Your task to perform on an android device: Open Google Maps and go to "Timeline" Image 0: 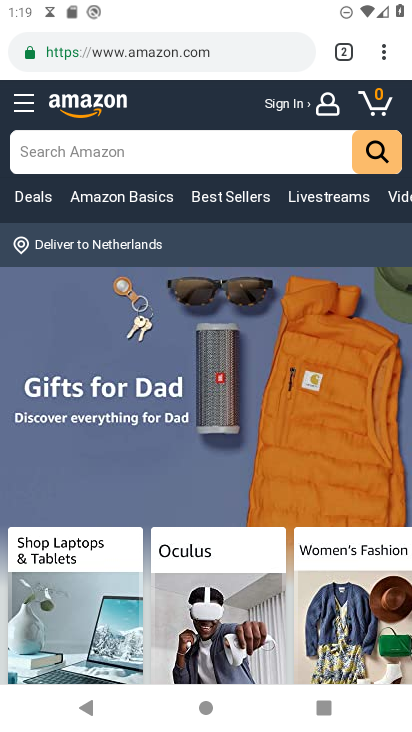
Step 0: press home button
Your task to perform on an android device: Open Google Maps and go to "Timeline" Image 1: 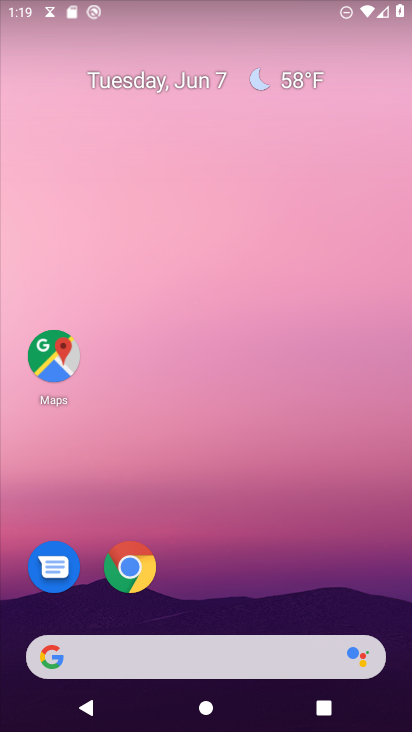
Step 1: drag from (380, 253) to (368, 0)
Your task to perform on an android device: Open Google Maps and go to "Timeline" Image 2: 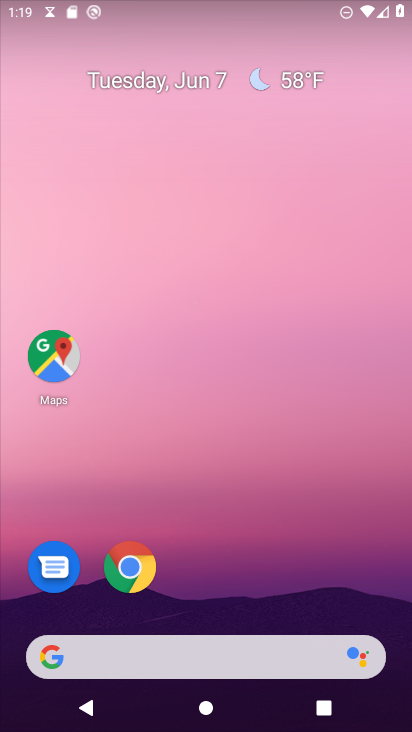
Step 2: click (56, 347)
Your task to perform on an android device: Open Google Maps and go to "Timeline" Image 3: 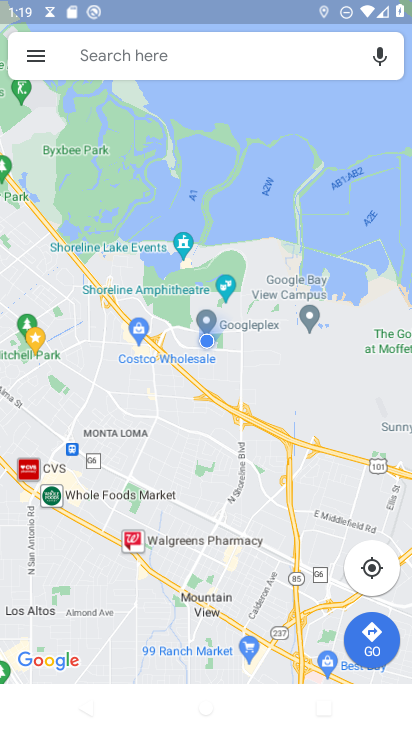
Step 3: click (43, 50)
Your task to perform on an android device: Open Google Maps and go to "Timeline" Image 4: 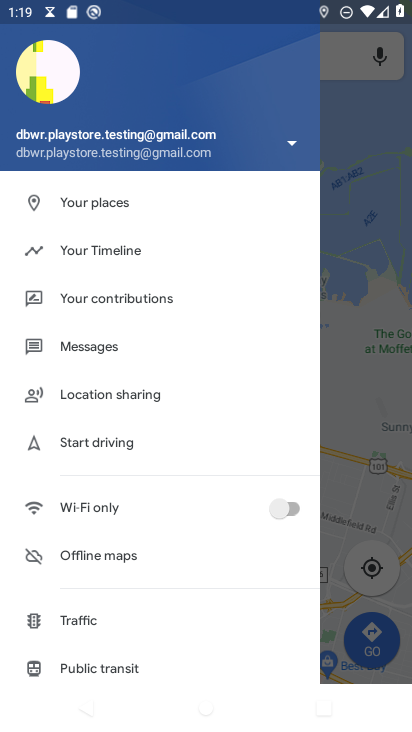
Step 4: click (91, 246)
Your task to perform on an android device: Open Google Maps and go to "Timeline" Image 5: 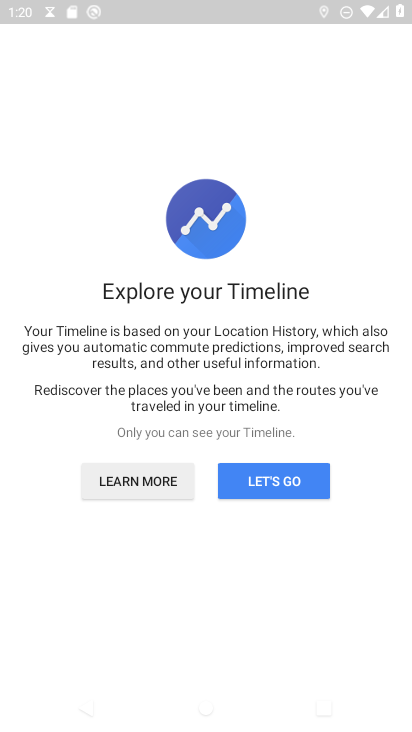
Step 5: click (276, 483)
Your task to perform on an android device: Open Google Maps and go to "Timeline" Image 6: 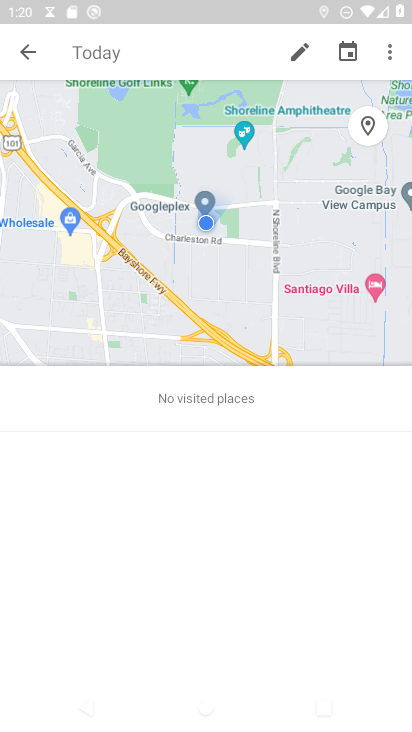
Step 6: task complete